Your task to perform on an android device: turn on improve location accuracy Image 0: 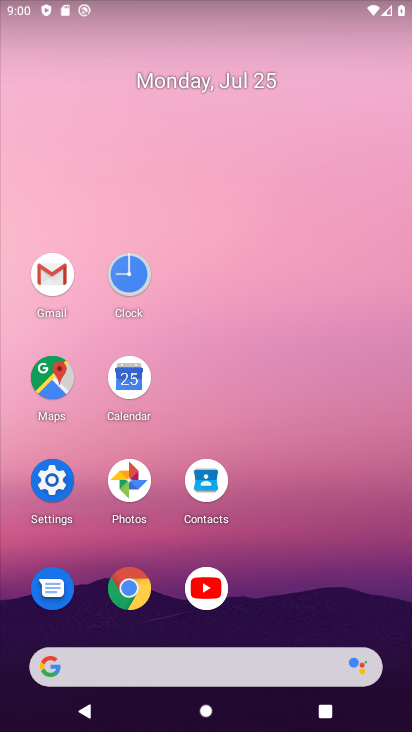
Step 0: click (51, 475)
Your task to perform on an android device: turn on improve location accuracy Image 1: 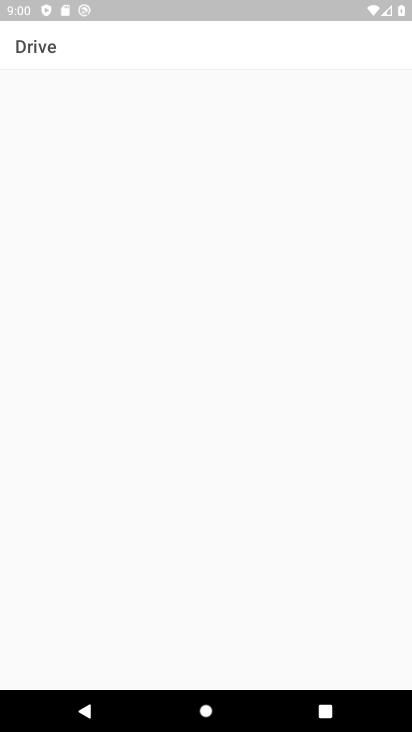
Step 1: press home button
Your task to perform on an android device: turn on improve location accuracy Image 2: 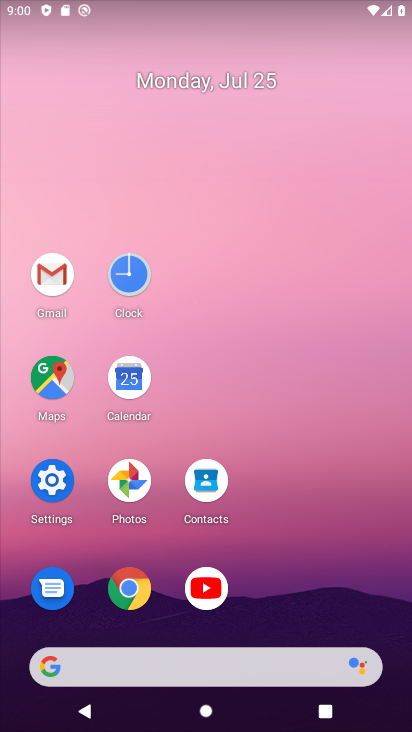
Step 2: click (52, 481)
Your task to perform on an android device: turn on improve location accuracy Image 3: 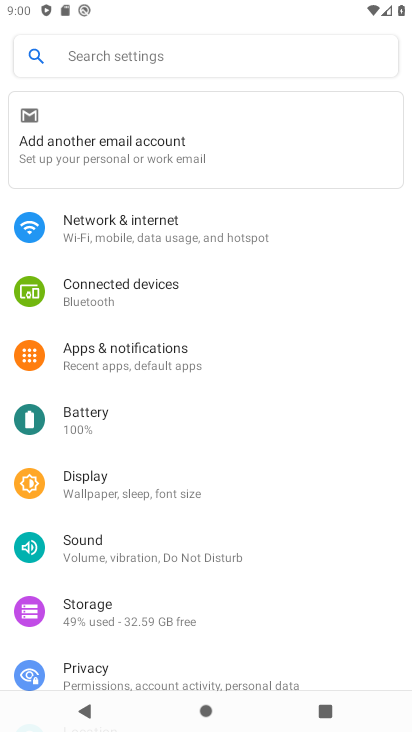
Step 3: drag from (289, 637) to (314, 281)
Your task to perform on an android device: turn on improve location accuracy Image 4: 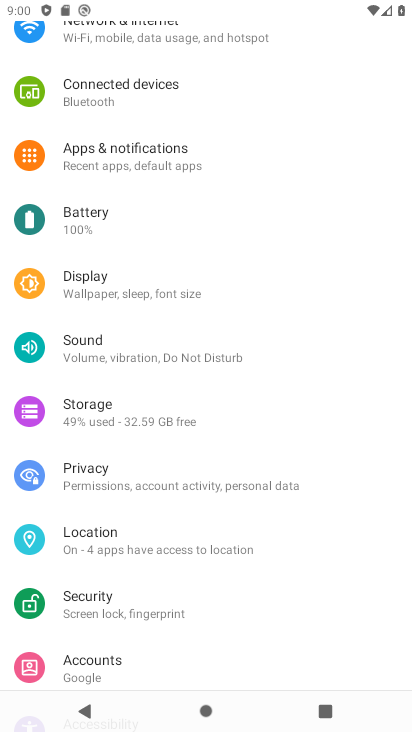
Step 4: click (80, 536)
Your task to perform on an android device: turn on improve location accuracy Image 5: 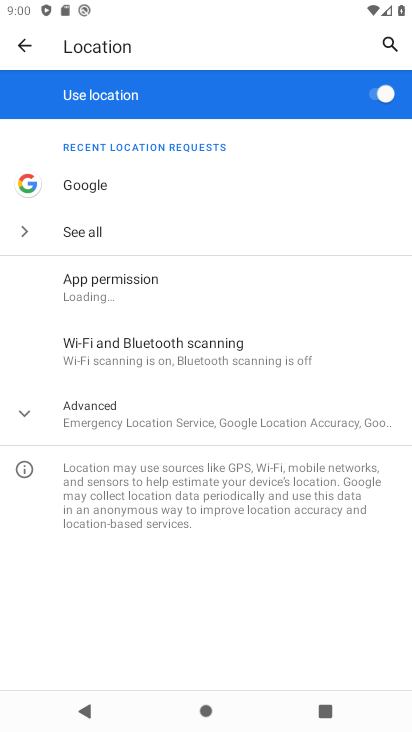
Step 5: click (22, 414)
Your task to perform on an android device: turn on improve location accuracy Image 6: 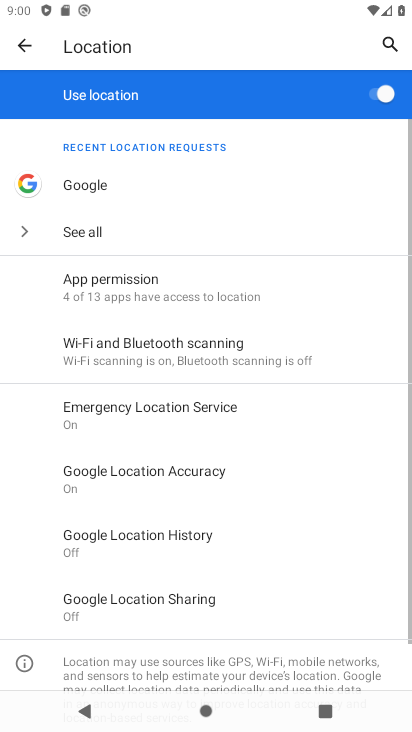
Step 6: click (138, 471)
Your task to perform on an android device: turn on improve location accuracy Image 7: 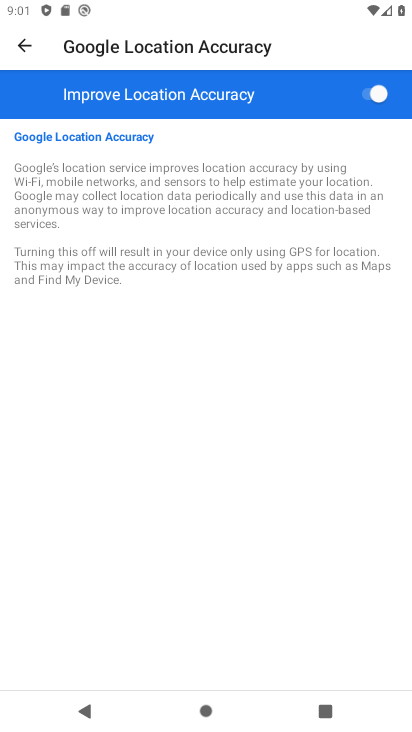
Step 7: task complete